Your task to perform on an android device: Open Maps and search for coffee Image 0: 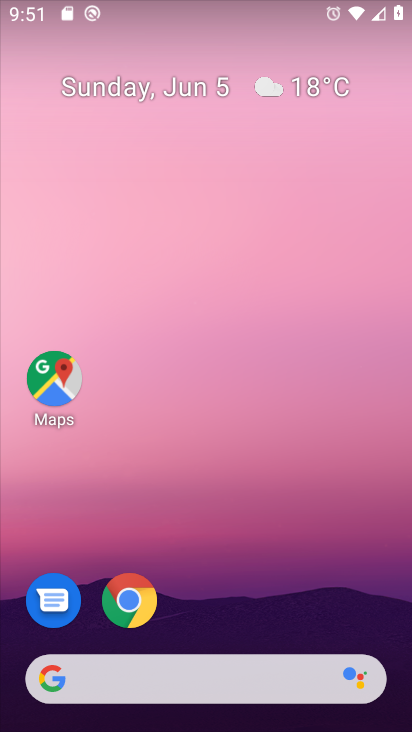
Step 0: click (58, 383)
Your task to perform on an android device: Open Maps and search for coffee Image 1: 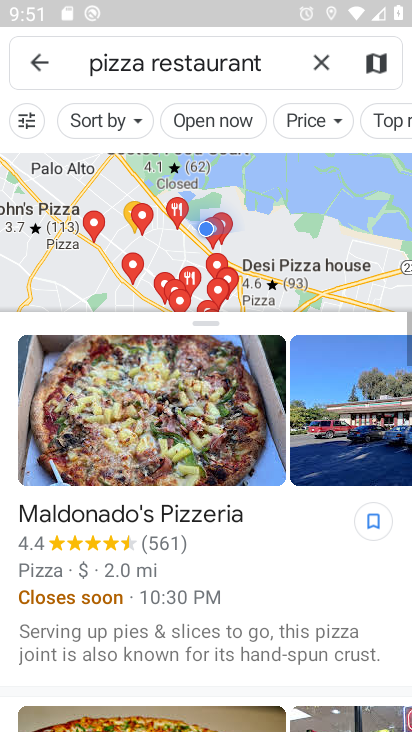
Step 1: click (318, 60)
Your task to perform on an android device: Open Maps and search for coffee Image 2: 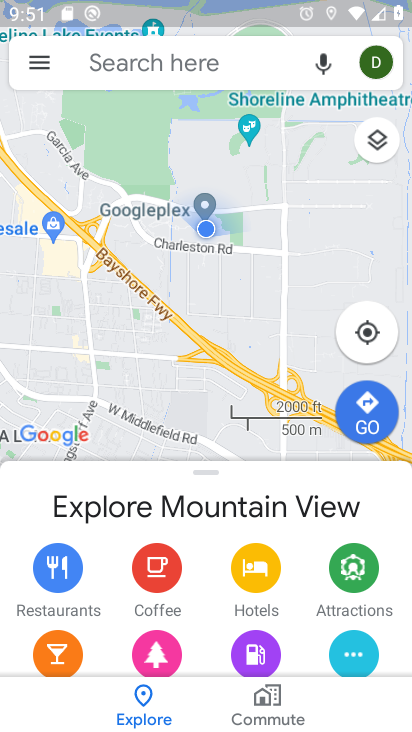
Step 2: click (277, 61)
Your task to perform on an android device: Open Maps and search for coffee Image 3: 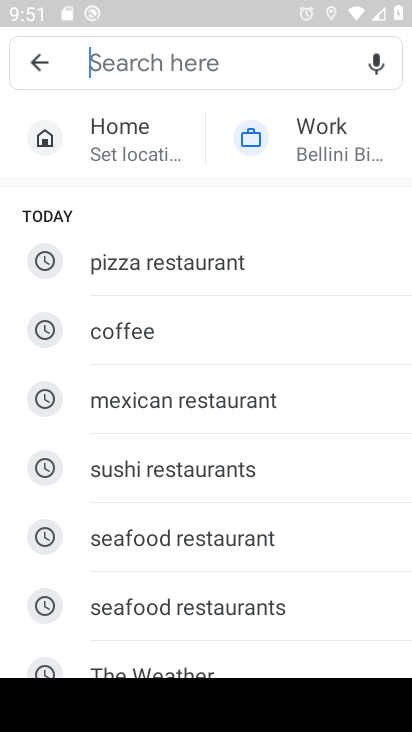
Step 3: click (161, 325)
Your task to perform on an android device: Open Maps and search for coffee Image 4: 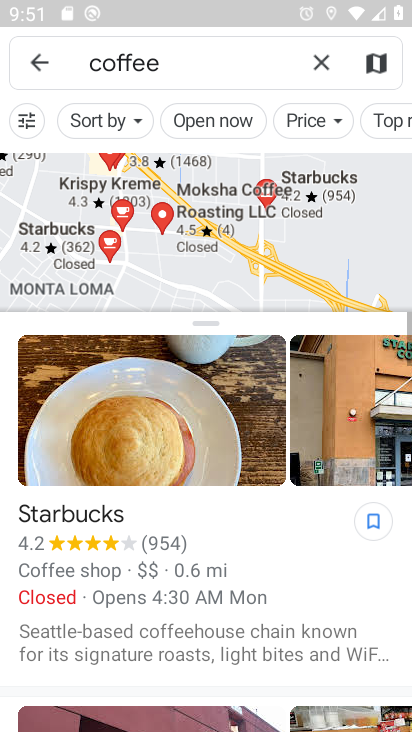
Step 4: task complete